Your task to perform on an android device: Go to display settings Image 0: 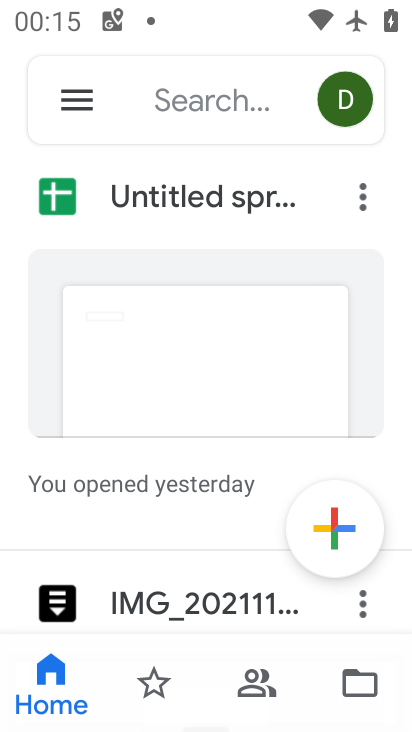
Step 0: press home button
Your task to perform on an android device: Go to display settings Image 1: 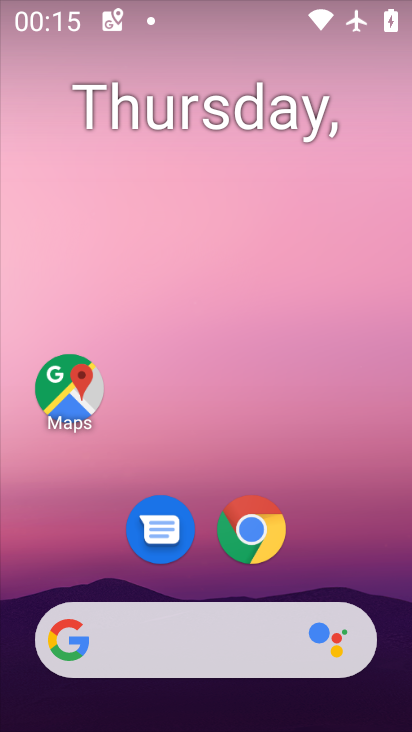
Step 1: drag from (398, 621) to (309, 107)
Your task to perform on an android device: Go to display settings Image 2: 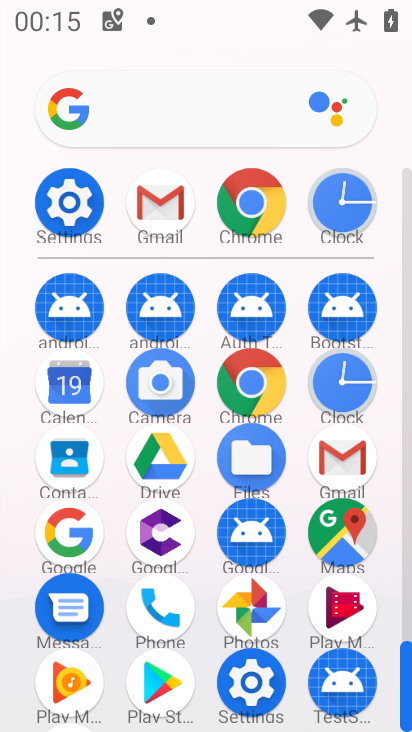
Step 2: click (253, 683)
Your task to perform on an android device: Go to display settings Image 3: 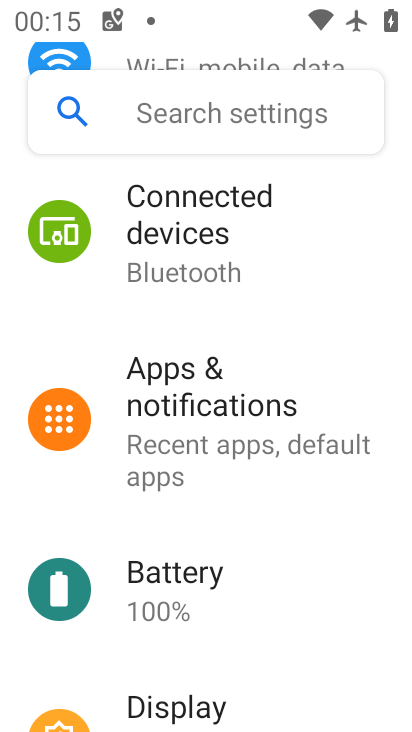
Step 3: drag from (363, 699) to (341, 258)
Your task to perform on an android device: Go to display settings Image 4: 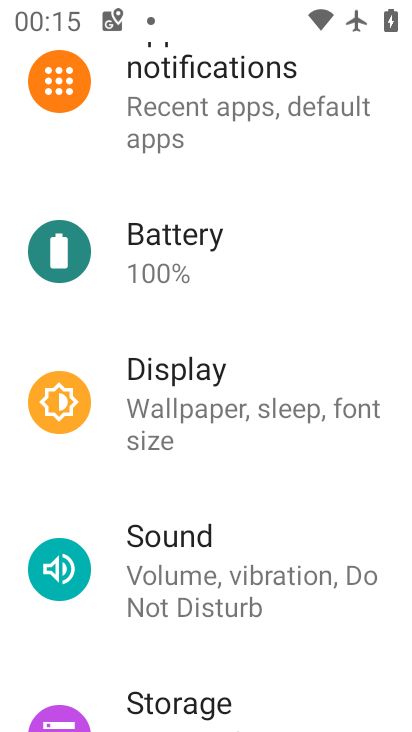
Step 4: click (176, 391)
Your task to perform on an android device: Go to display settings Image 5: 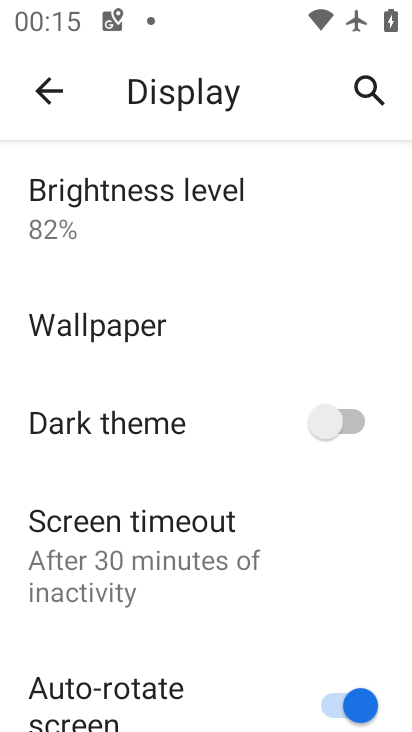
Step 5: drag from (265, 636) to (273, 264)
Your task to perform on an android device: Go to display settings Image 6: 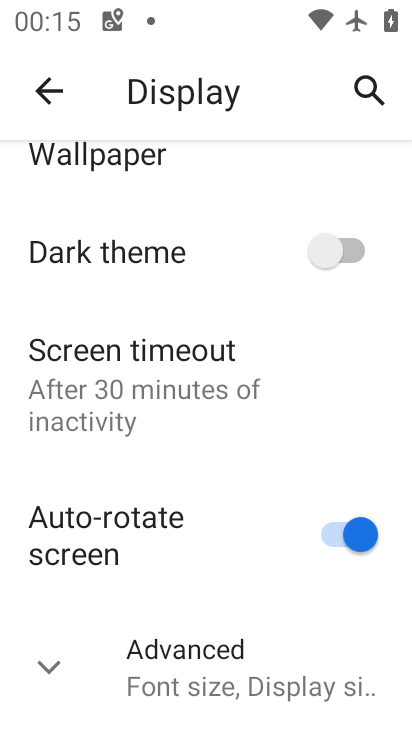
Step 6: click (43, 671)
Your task to perform on an android device: Go to display settings Image 7: 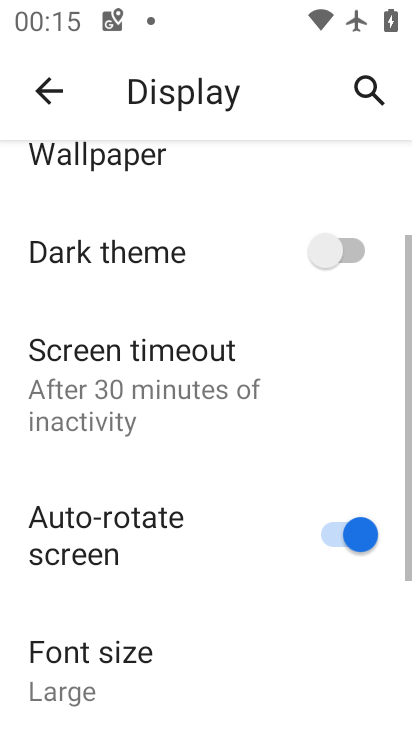
Step 7: click (49, 667)
Your task to perform on an android device: Go to display settings Image 8: 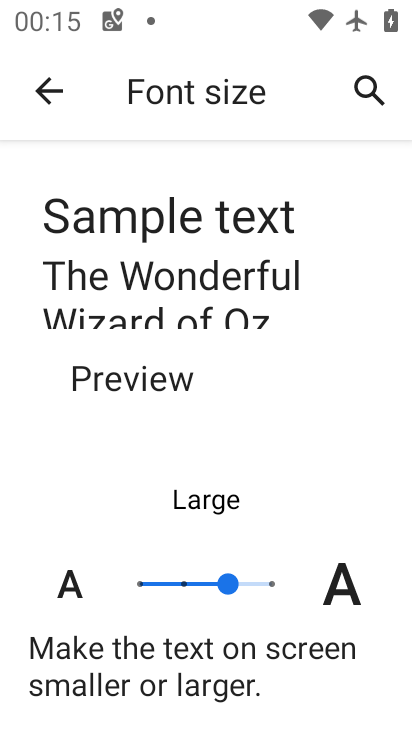
Step 8: task complete